Your task to perform on an android device: Clear all items from cart on amazon. Search for "amazon basics triple a" on amazon, select the first entry, and add it to the cart. Image 0: 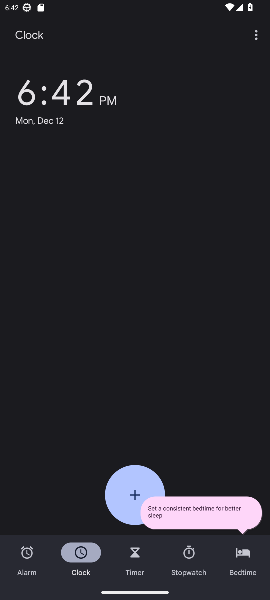
Step 0: press home button
Your task to perform on an android device: Clear all items from cart on amazon. Search for "amazon basics triple a" on amazon, select the first entry, and add it to the cart. Image 1: 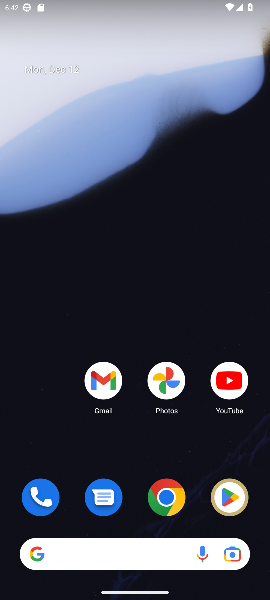
Step 1: drag from (49, 450) to (46, 38)
Your task to perform on an android device: Clear all items from cart on amazon. Search for "amazon basics triple a" on amazon, select the first entry, and add it to the cart. Image 2: 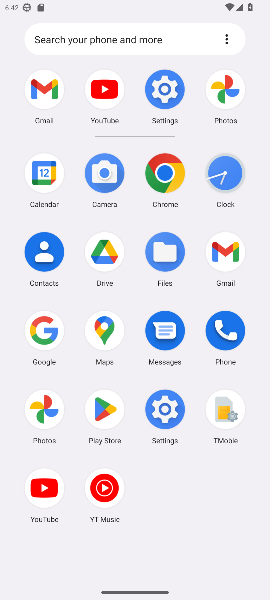
Step 2: click (42, 319)
Your task to perform on an android device: Clear all items from cart on amazon. Search for "amazon basics triple a" on amazon, select the first entry, and add it to the cart. Image 3: 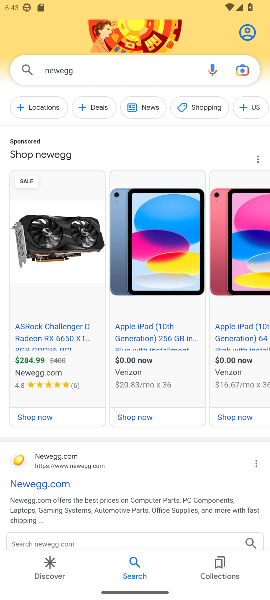
Step 3: click (108, 70)
Your task to perform on an android device: Clear all items from cart on amazon. Search for "amazon basics triple a" on amazon, select the first entry, and add it to the cart. Image 4: 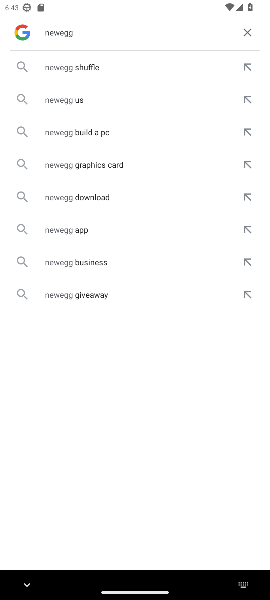
Step 4: click (245, 31)
Your task to perform on an android device: Clear all items from cart on amazon. Search for "amazon basics triple a" on amazon, select the first entry, and add it to the cart. Image 5: 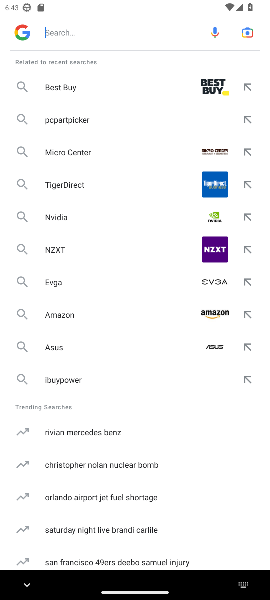
Step 5: type "amazon"
Your task to perform on an android device: Clear all items from cart on amazon. Search for "amazon basics triple a" on amazon, select the first entry, and add it to the cart. Image 6: 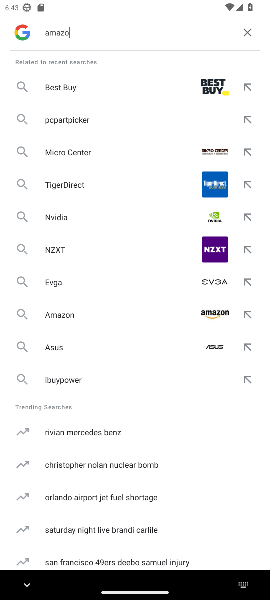
Step 6: press enter
Your task to perform on an android device: Clear all items from cart on amazon. Search for "amazon basics triple a" on amazon, select the first entry, and add it to the cart. Image 7: 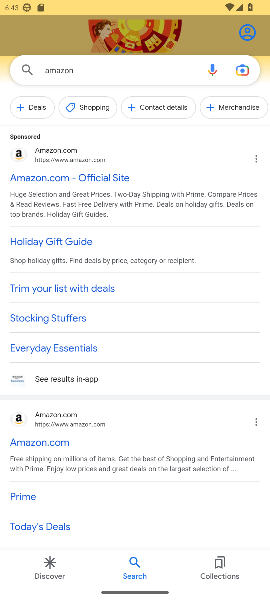
Step 7: click (112, 177)
Your task to perform on an android device: Clear all items from cart on amazon. Search for "amazon basics triple a" on amazon, select the first entry, and add it to the cart. Image 8: 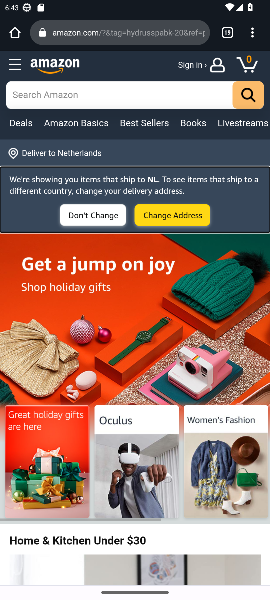
Step 8: click (250, 63)
Your task to perform on an android device: Clear all items from cart on amazon. Search for "amazon basics triple a" on amazon, select the first entry, and add it to the cart. Image 9: 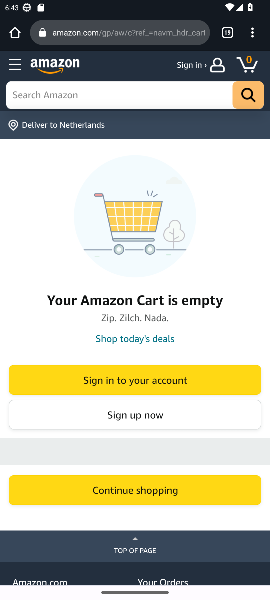
Step 9: click (66, 97)
Your task to perform on an android device: Clear all items from cart on amazon. Search for "amazon basics triple a" on amazon, select the first entry, and add it to the cart. Image 10: 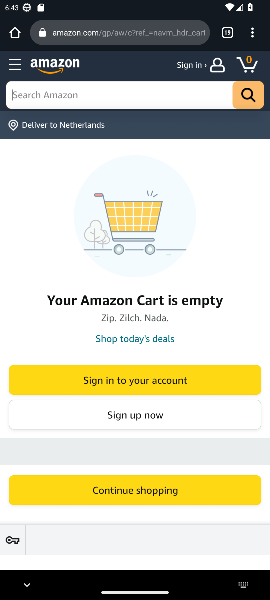
Step 10: type "amazon basics"
Your task to perform on an android device: Clear all items from cart on amazon. Search for "amazon basics triple a" on amazon, select the first entry, and add it to the cart. Image 11: 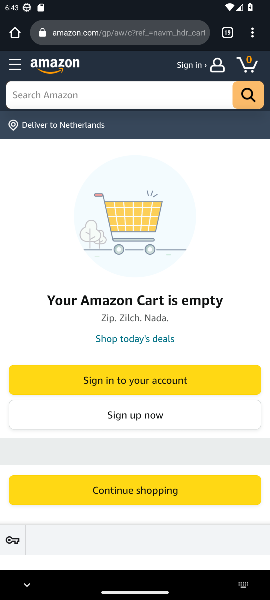
Step 11: press enter
Your task to perform on an android device: Clear all items from cart on amazon. Search for "amazon basics triple a" on amazon, select the first entry, and add it to the cart. Image 12: 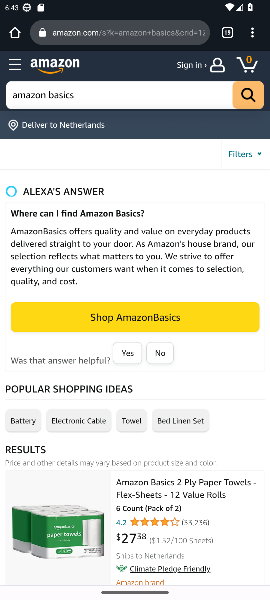
Step 12: drag from (175, 536) to (177, 263)
Your task to perform on an android device: Clear all items from cart on amazon. Search for "amazon basics triple a" on amazon, select the first entry, and add it to the cart. Image 13: 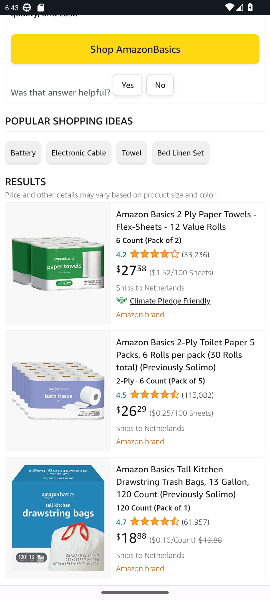
Step 13: click (178, 228)
Your task to perform on an android device: Clear all items from cart on amazon. Search for "amazon basics triple a" on amazon, select the first entry, and add it to the cart. Image 14: 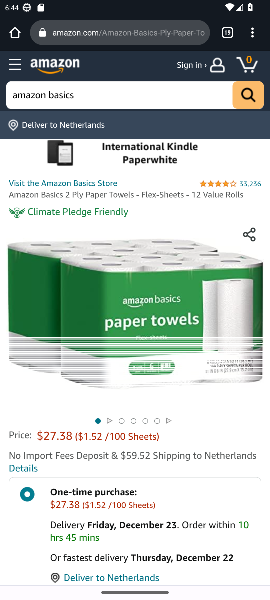
Step 14: drag from (176, 515) to (172, 243)
Your task to perform on an android device: Clear all items from cart on amazon. Search for "amazon basics triple a" on amazon, select the first entry, and add it to the cart. Image 15: 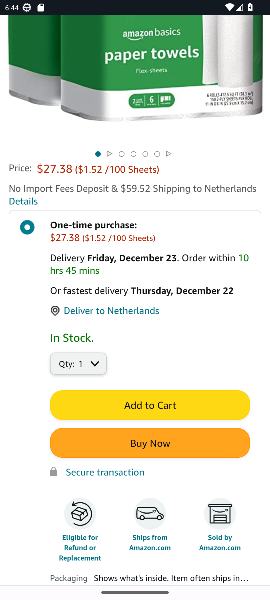
Step 15: click (151, 410)
Your task to perform on an android device: Clear all items from cart on amazon. Search for "amazon basics triple a" on amazon, select the first entry, and add it to the cart. Image 16: 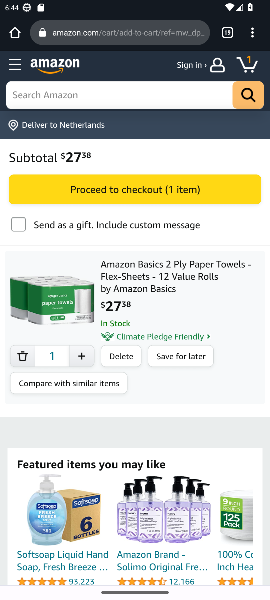
Step 16: task complete